Your task to perform on an android device: toggle show notifications on the lock screen Image 0: 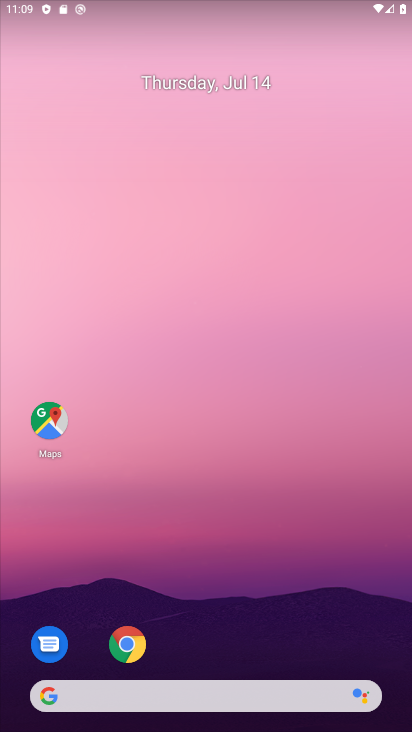
Step 0: drag from (370, 624) to (162, 53)
Your task to perform on an android device: toggle show notifications on the lock screen Image 1: 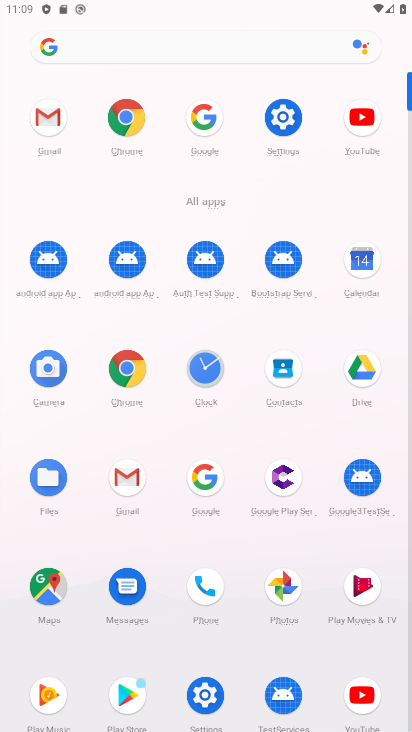
Step 1: click (199, 699)
Your task to perform on an android device: toggle show notifications on the lock screen Image 2: 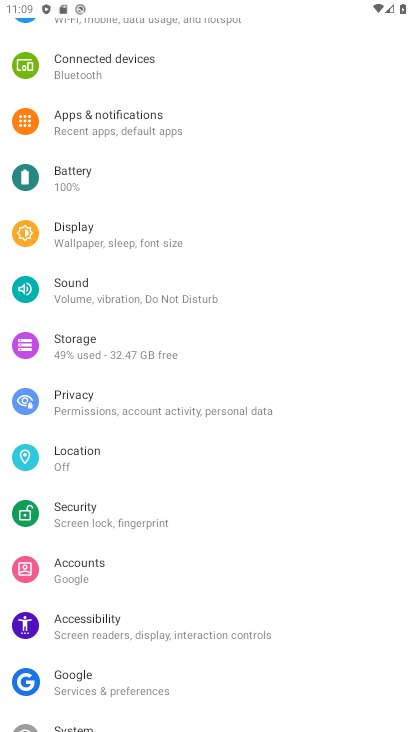
Step 2: click (151, 117)
Your task to perform on an android device: toggle show notifications on the lock screen Image 3: 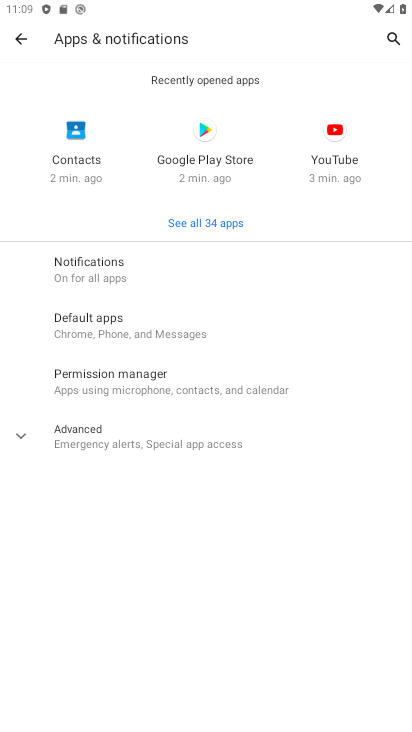
Step 3: click (123, 272)
Your task to perform on an android device: toggle show notifications on the lock screen Image 4: 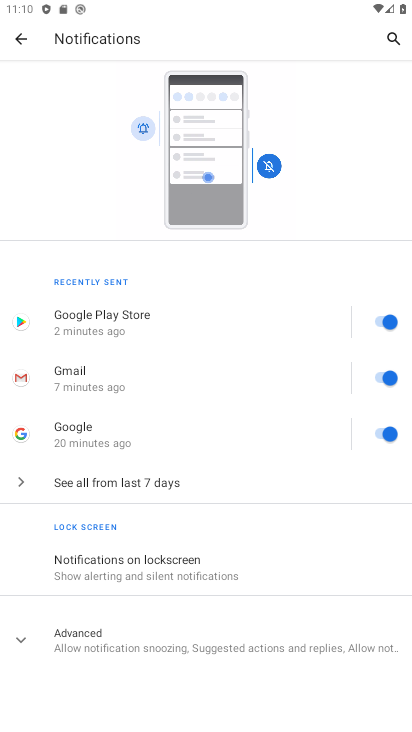
Step 4: click (121, 559)
Your task to perform on an android device: toggle show notifications on the lock screen Image 5: 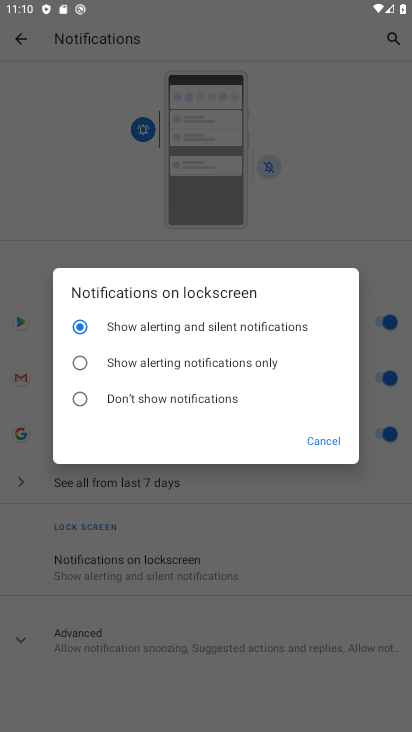
Step 5: click (76, 405)
Your task to perform on an android device: toggle show notifications on the lock screen Image 6: 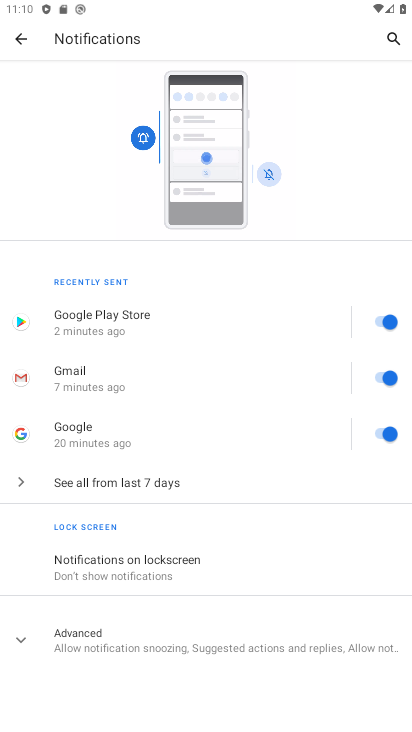
Step 6: task complete